Your task to perform on an android device: Check the weather Image 0: 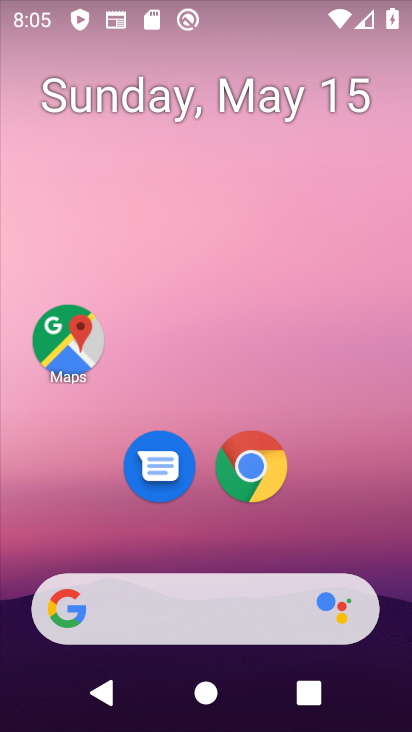
Step 0: click (186, 613)
Your task to perform on an android device: Check the weather Image 1: 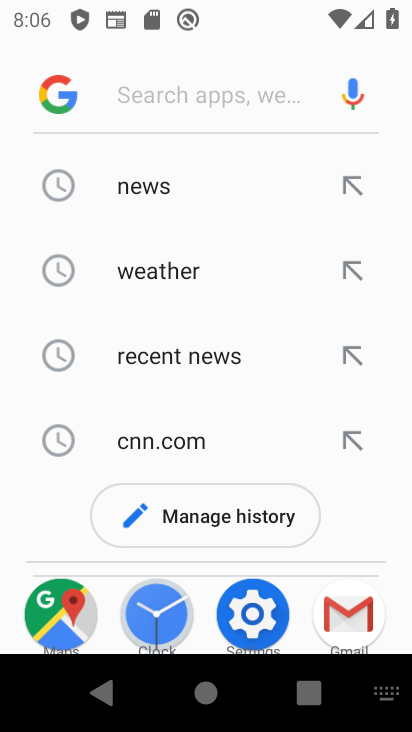
Step 1: click (148, 264)
Your task to perform on an android device: Check the weather Image 2: 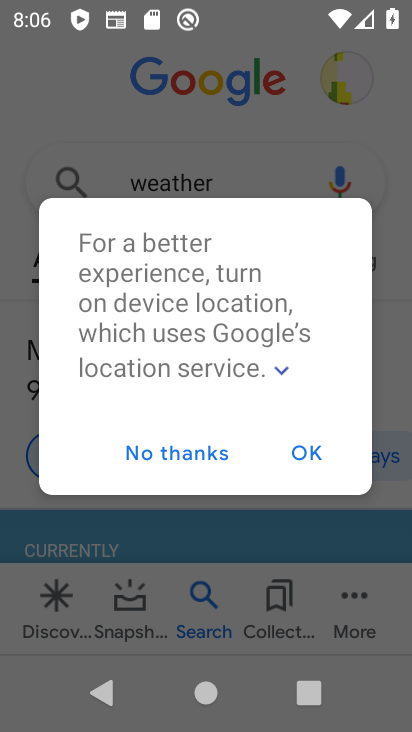
Step 2: task complete